Your task to perform on an android device: Open display settings Image 0: 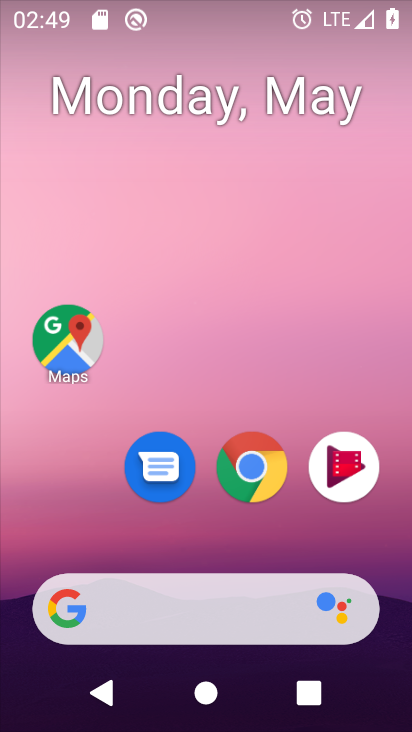
Step 0: drag from (214, 342) to (221, 201)
Your task to perform on an android device: Open display settings Image 1: 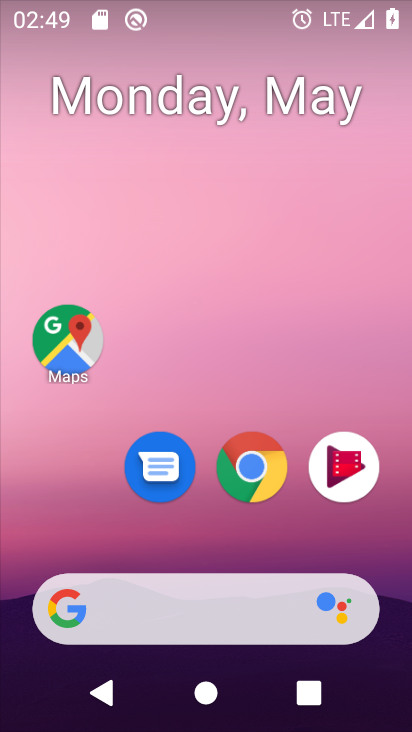
Step 1: drag from (211, 553) to (241, 198)
Your task to perform on an android device: Open display settings Image 2: 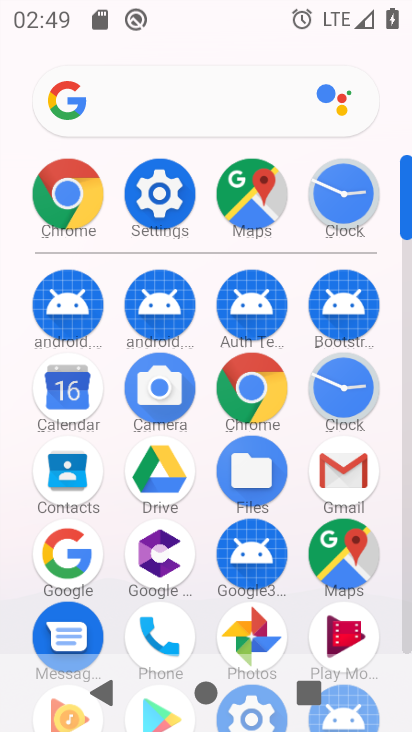
Step 2: click (174, 186)
Your task to perform on an android device: Open display settings Image 3: 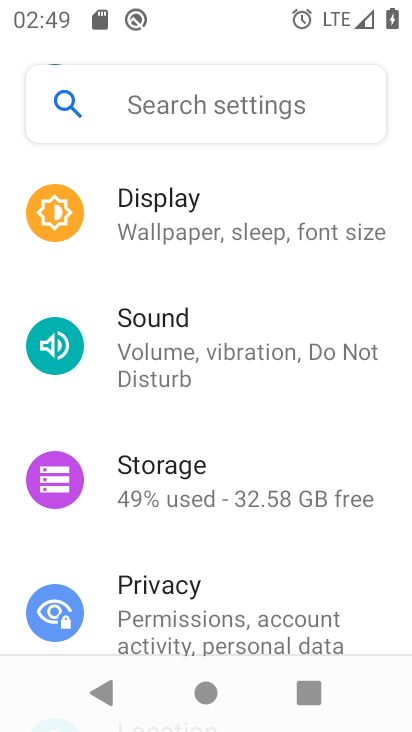
Step 3: click (146, 217)
Your task to perform on an android device: Open display settings Image 4: 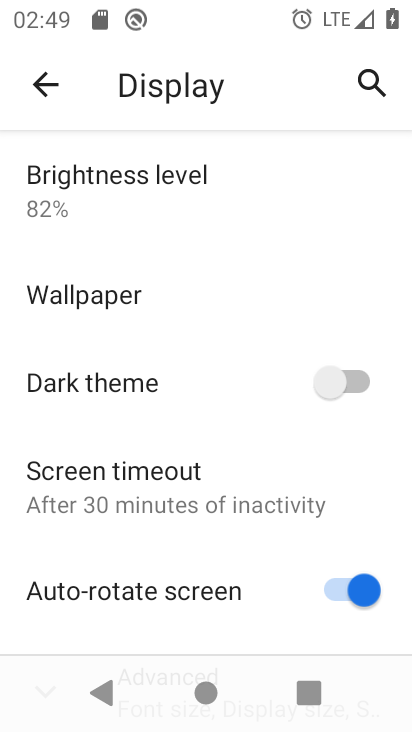
Step 4: task complete